Your task to perform on an android device: Go to wifi settings Image 0: 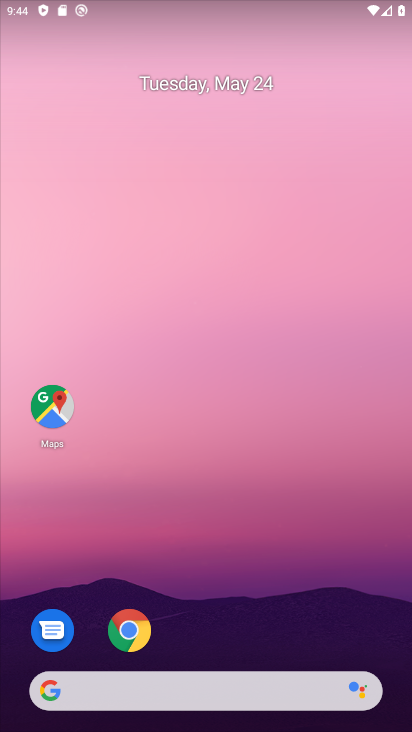
Step 0: press home button
Your task to perform on an android device: Go to wifi settings Image 1: 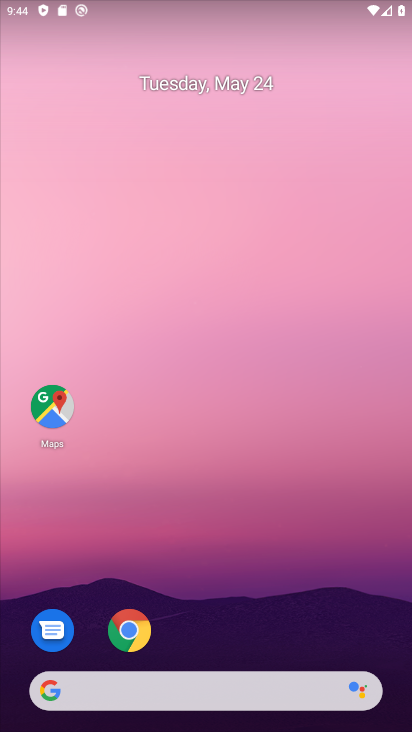
Step 1: drag from (220, 650) to (251, 84)
Your task to perform on an android device: Go to wifi settings Image 2: 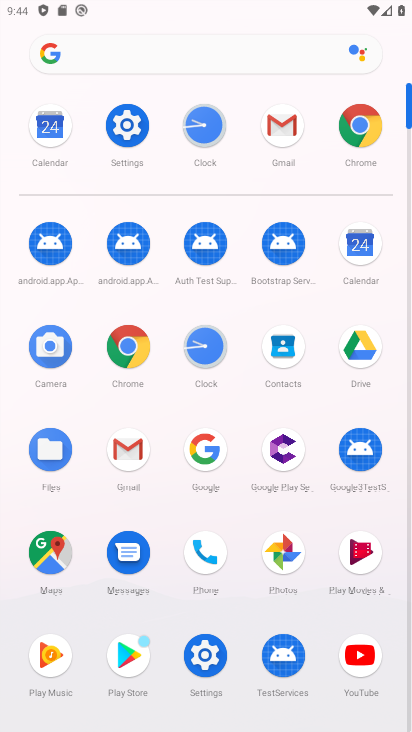
Step 2: click (124, 121)
Your task to perform on an android device: Go to wifi settings Image 3: 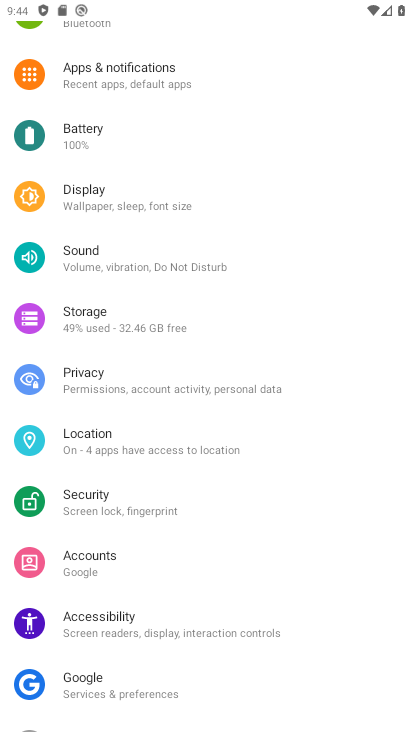
Step 3: drag from (167, 160) to (209, 644)
Your task to perform on an android device: Go to wifi settings Image 4: 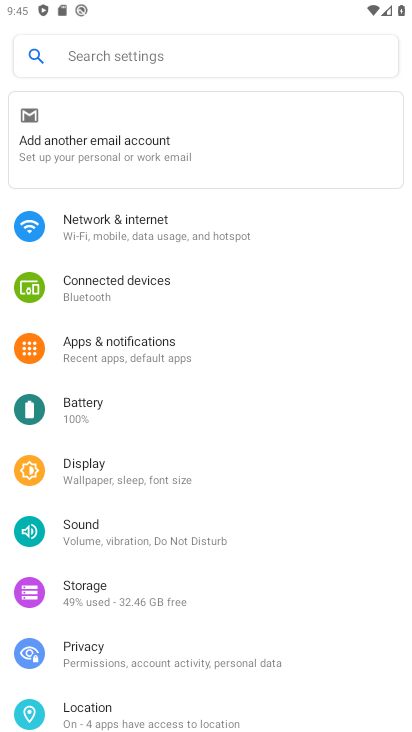
Step 4: click (174, 219)
Your task to perform on an android device: Go to wifi settings Image 5: 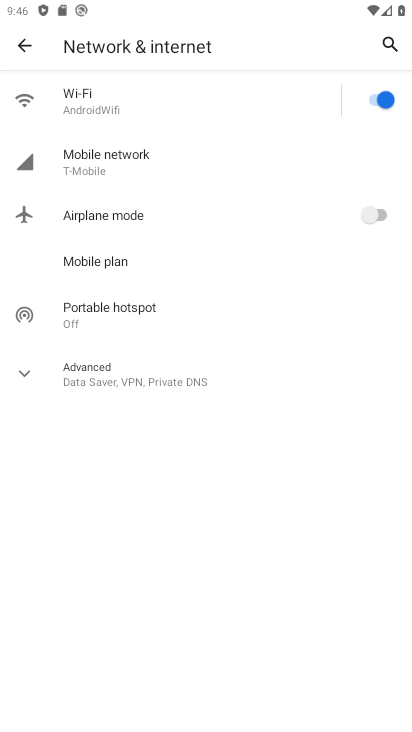
Step 5: click (126, 93)
Your task to perform on an android device: Go to wifi settings Image 6: 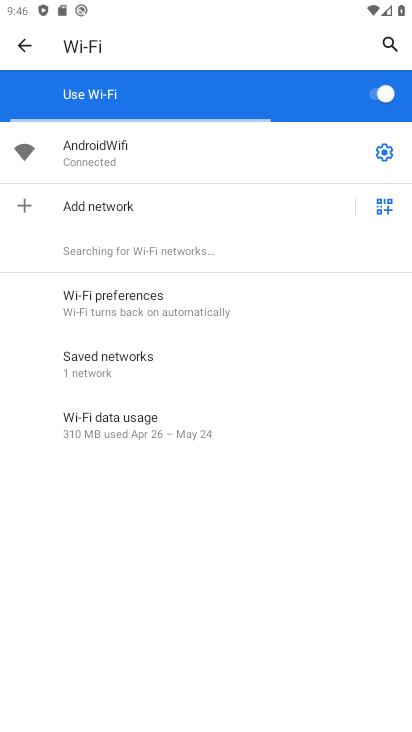
Step 6: task complete